Your task to perform on an android device: Go to sound settings Image 0: 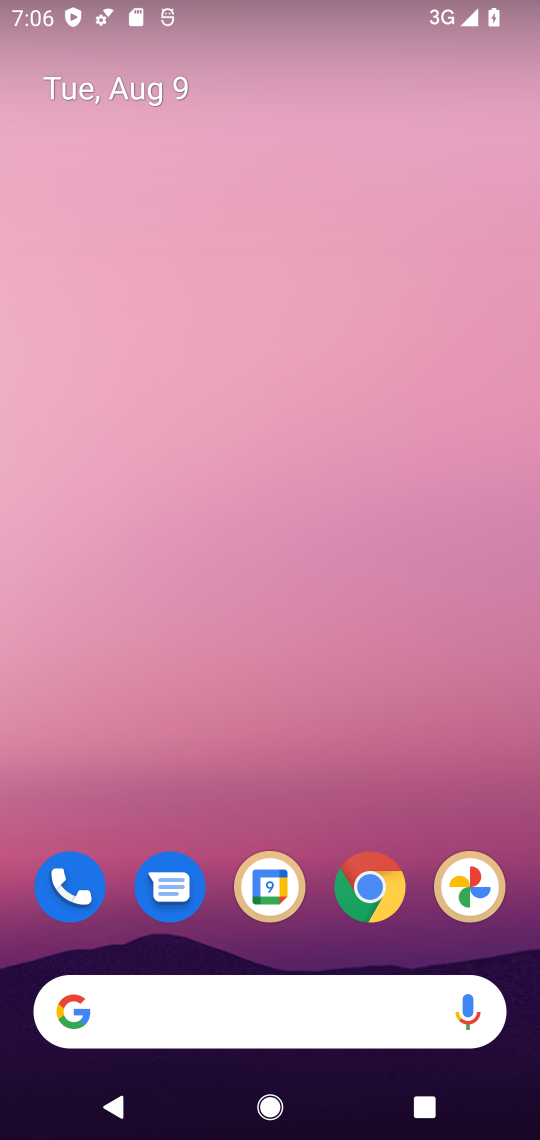
Step 0: drag from (282, 783) to (256, 0)
Your task to perform on an android device: Go to sound settings Image 1: 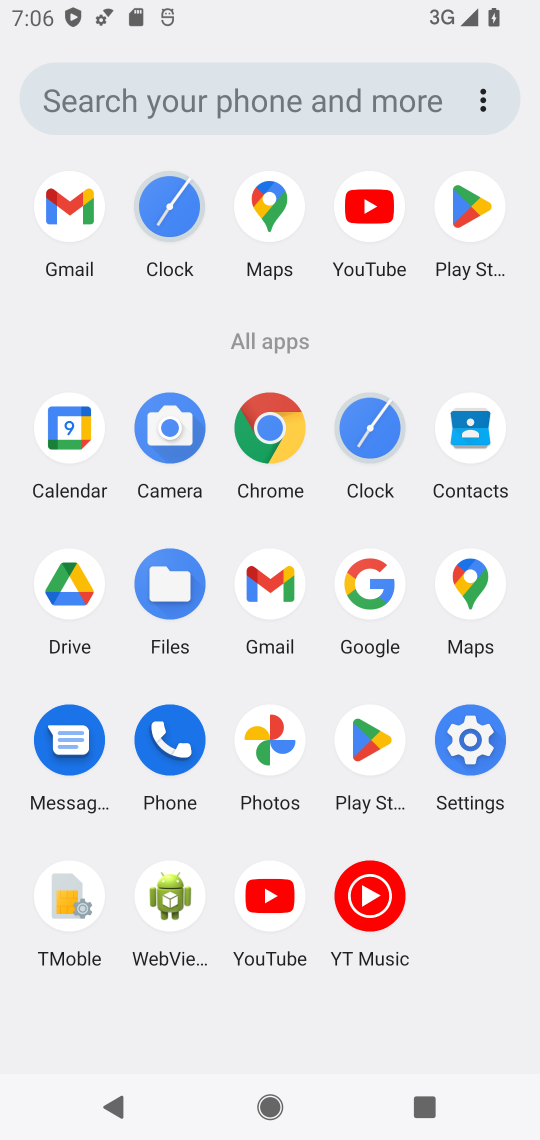
Step 1: click (472, 742)
Your task to perform on an android device: Go to sound settings Image 2: 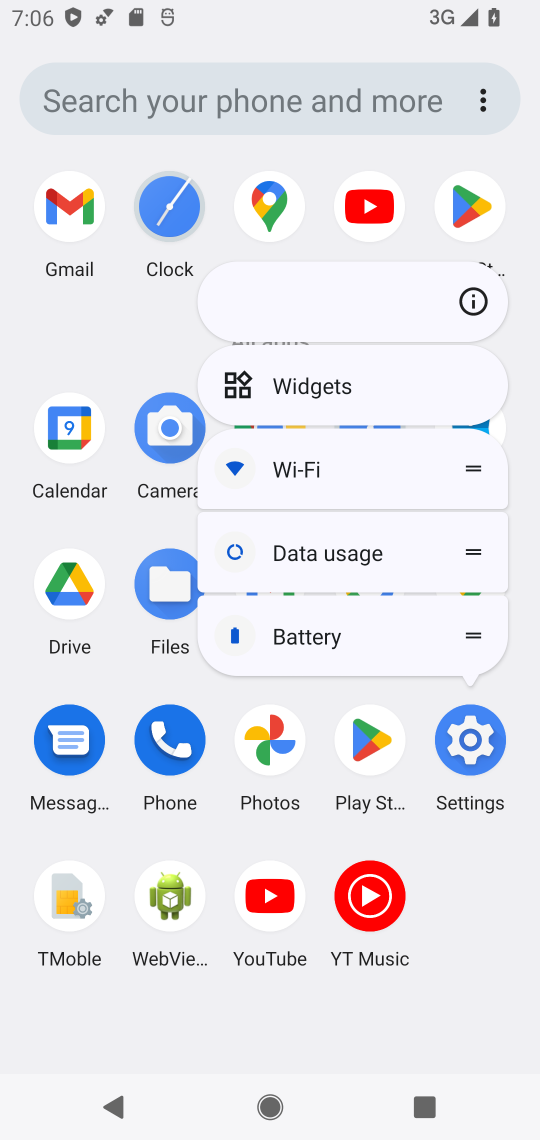
Step 2: click (472, 742)
Your task to perform on an android device: Go to sound settings Image 3: 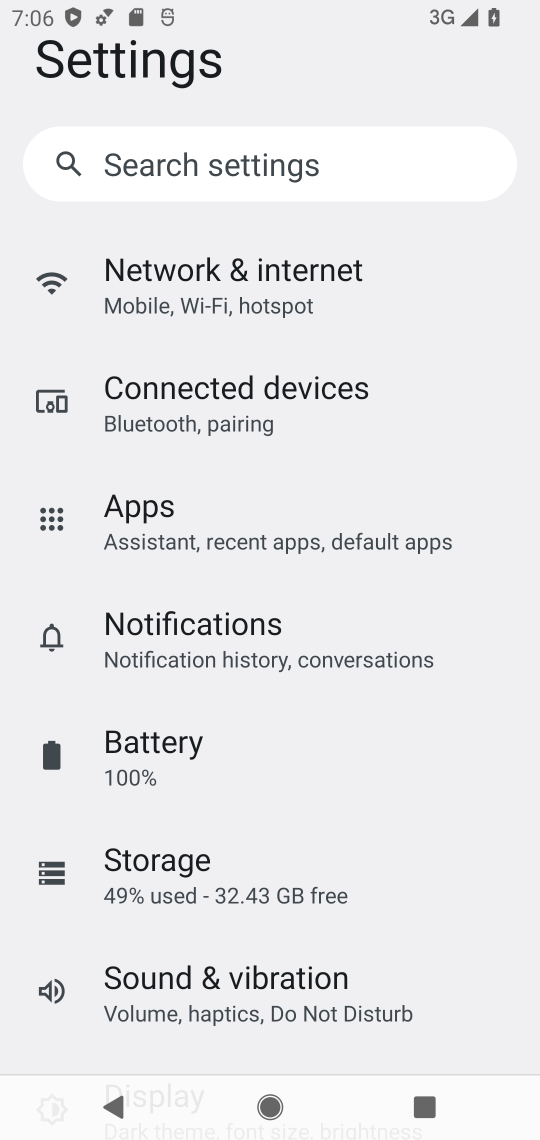
Step 3: drag from (317, 843) to (315, 7)
Your task to perform on an android device: Go to sound settings Image 4: 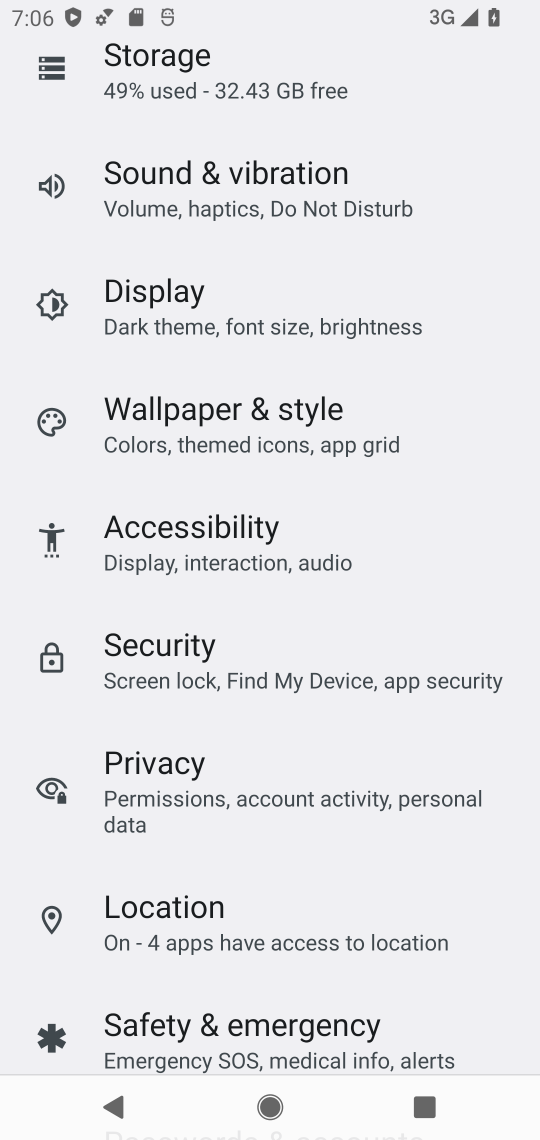
Step 4: click (279, 183)
Your task to perform on an android device: Go to sound settings Image 5: 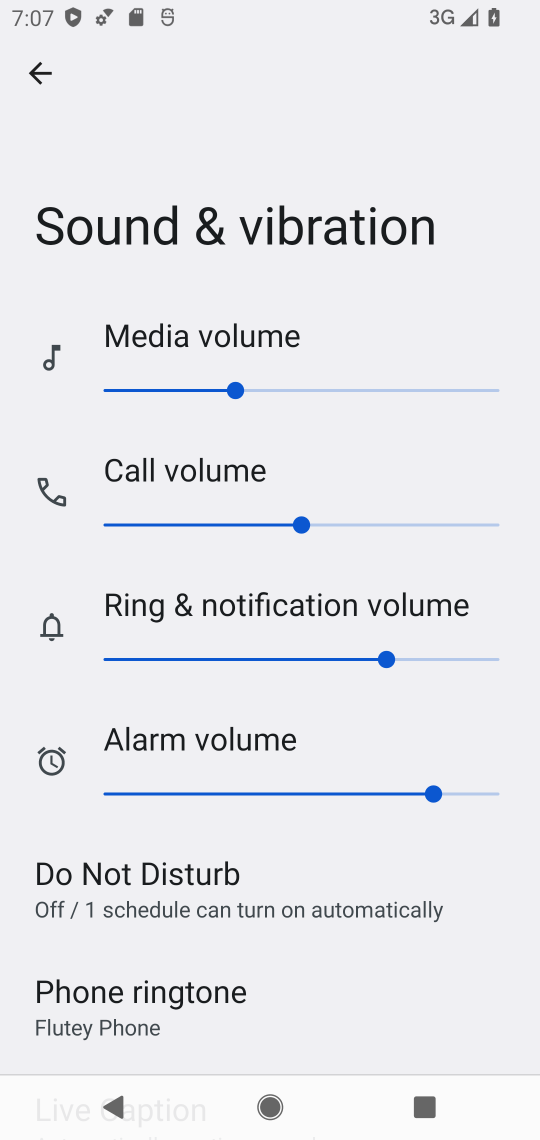
Step 5: task complete